Your task to perform on an android device: check android version Image 0: 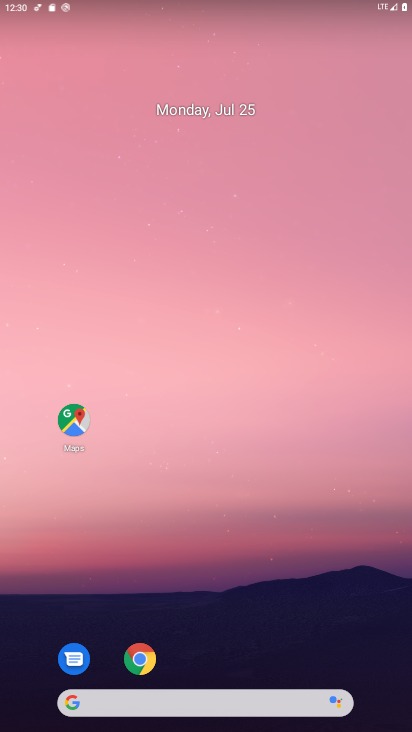
Step 0: drag from (203, 558) to (213, 1)
Your task to perform on an android device: check android version Image 1: 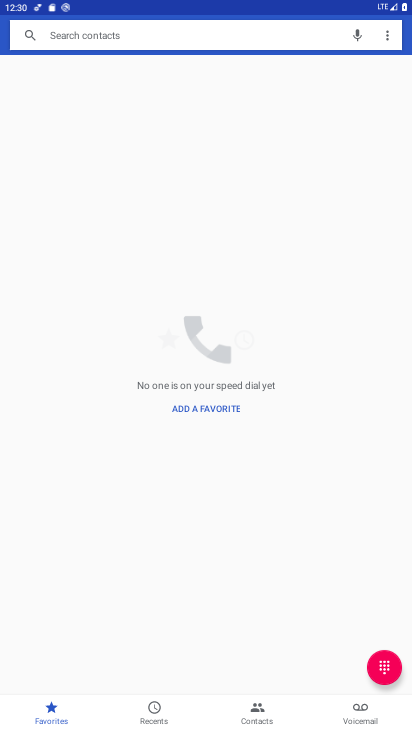
Step 1: press home button
Your task to perform on an android device: check android version Image 2: 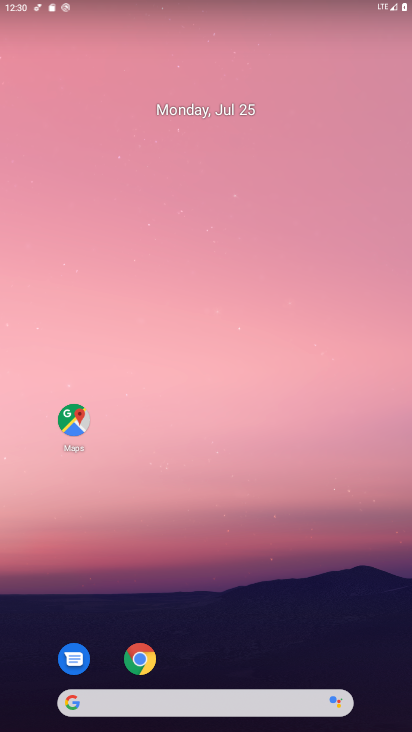
Step 2: press home button
Your task to perform on an android device: check android version Image 3: 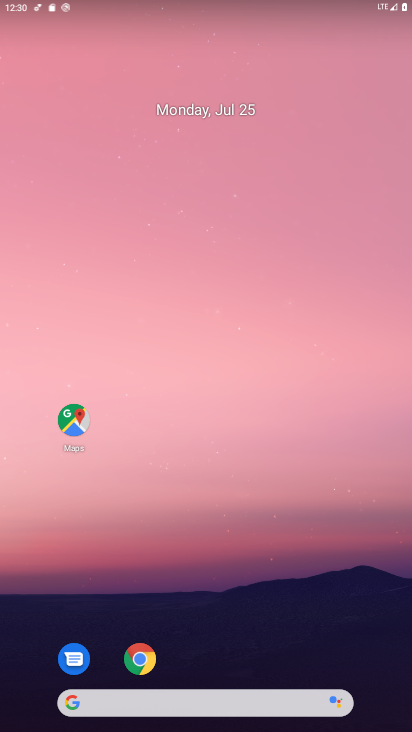
Step 3: drag from (215, 665) to (201, 15)
Your task to perform on an android device: check android version Image 4: 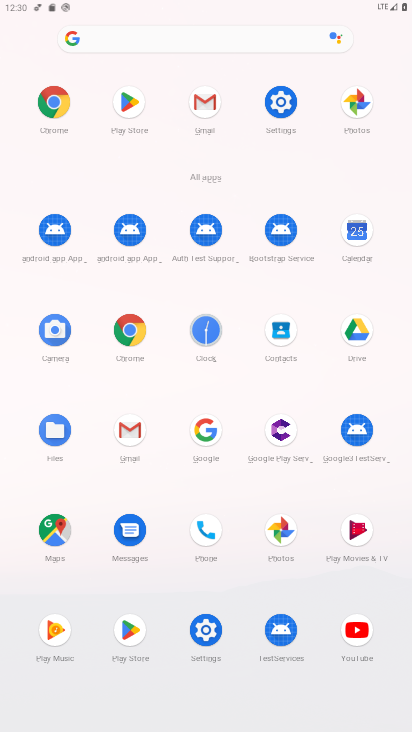
Step 4: click (278, 95)
Your task to perform on an android device: check android version Image 5: 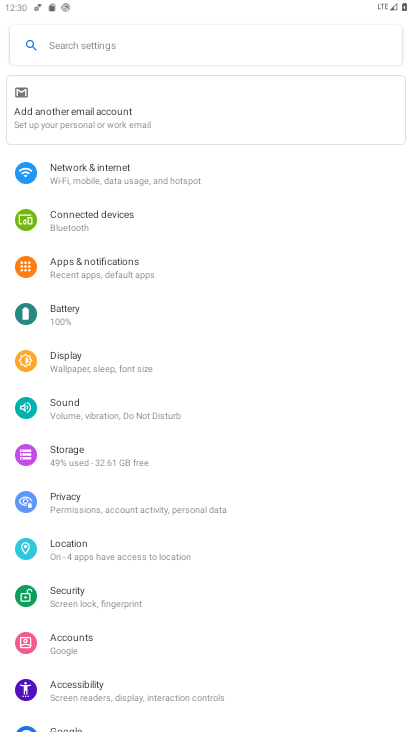
Step 5: drag from (212, 674) to (215, 119)
Your task to perform on an android device: check android version Image 6: 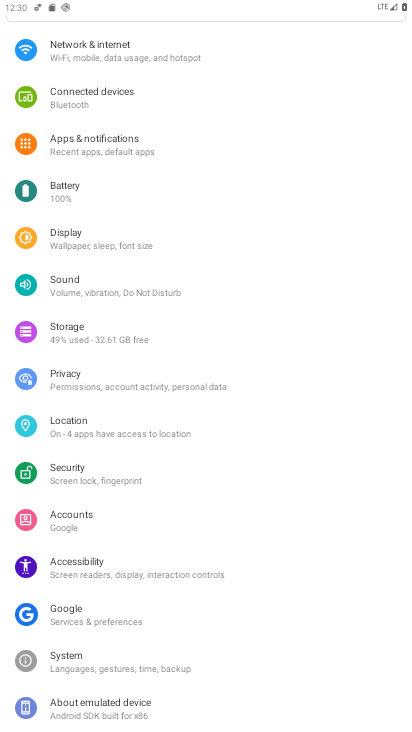
Step 6: click (163, 710)
Your task to perform on an android device: check android version Image 7: 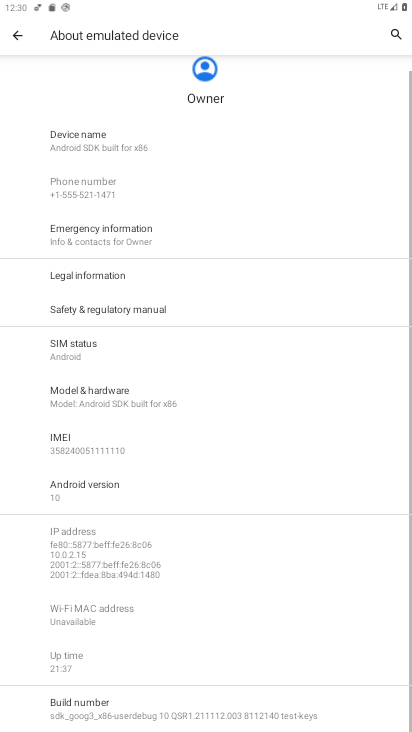
Step 7: click (93, 497)
Your task to perform on an android device: check android version Image 8: 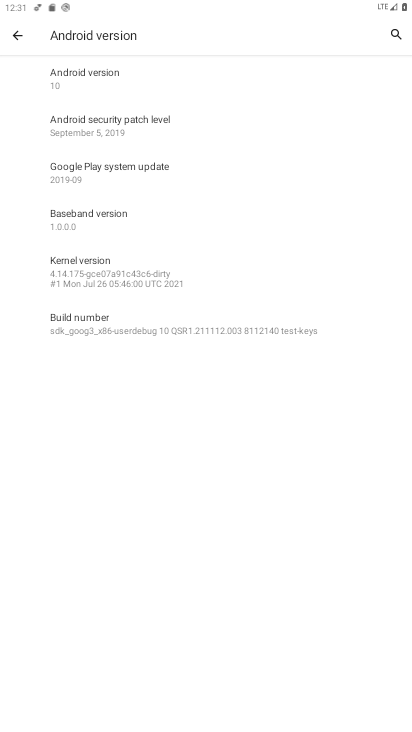
Step 8: task complete